Your task to perform on an android device: turn on priority inbox in the gmail app Image 0: 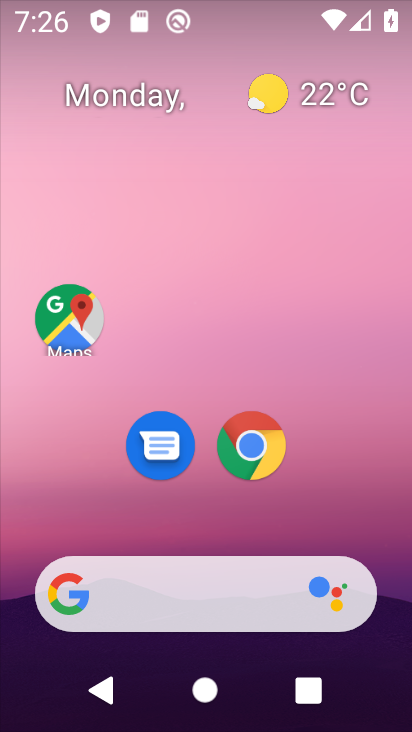
Step 0: click (194, 723)
Your task to perform on an android device: turn on priority inbox in the gmail app Image 1: 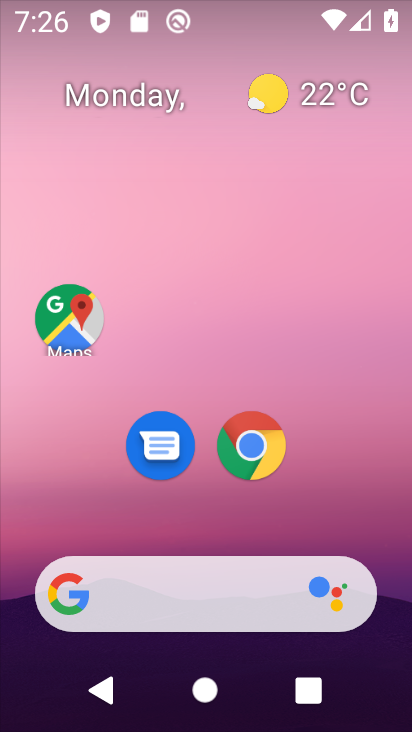
Step 1: press home button
Your task to perform on an android device: turn on priority inbox in the gmail app Image 2: 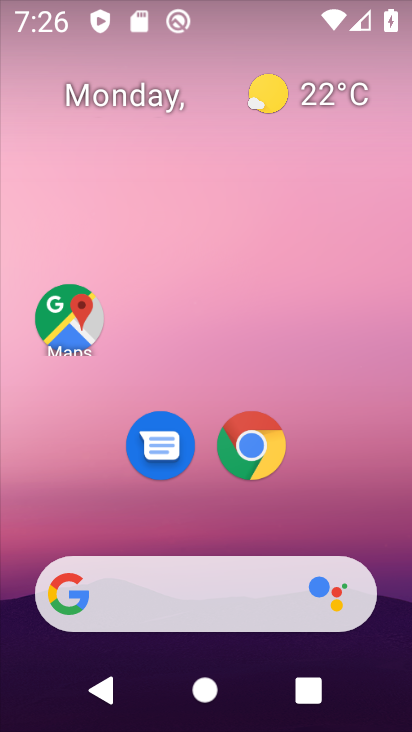
Step 2: drag from (344, 526) to (288, 78)
Your task to perform on an android device: turn on priority inbox in the gmail app Image 3: 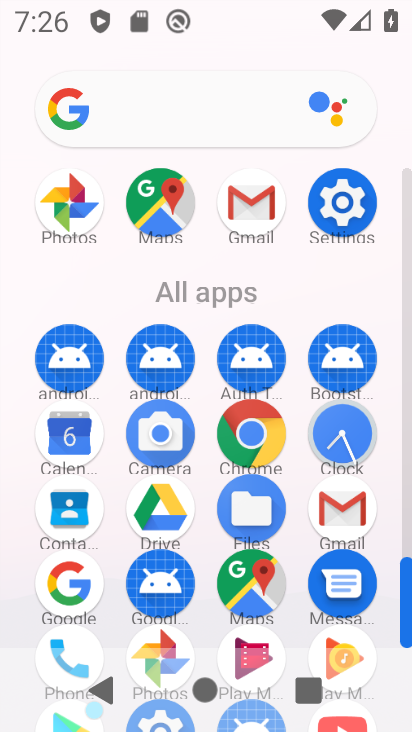
Step 3: click (239, 195)
Your task to perform on an android device: turn on priority inbox in the gmail app Image 4: 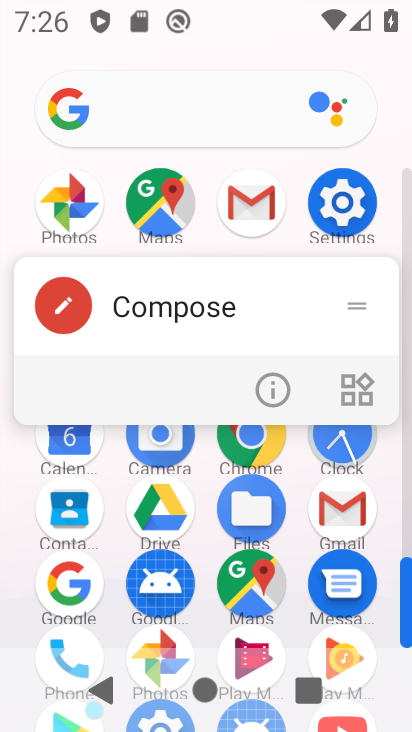
Step 4: click (236, 198)
Your task to perform on an android device: turn on priority inbox in the gmail app Image 5: 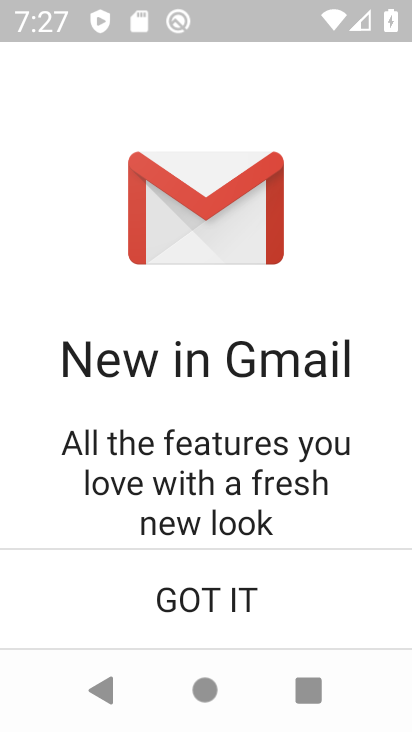
Step 5: click (216, 600)
Your task to perform on an android device: turn on priority inbox in the gmail app Image 6: 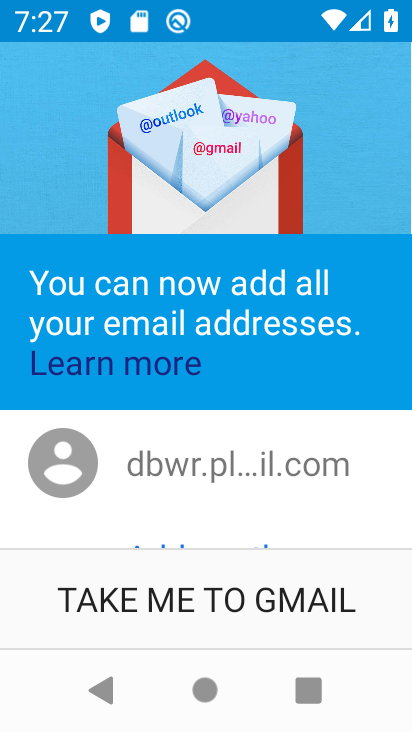
Step 6: click (216, 600)
Your task to perform on an android device: turn on priority inbox in the gmail app Image 7: 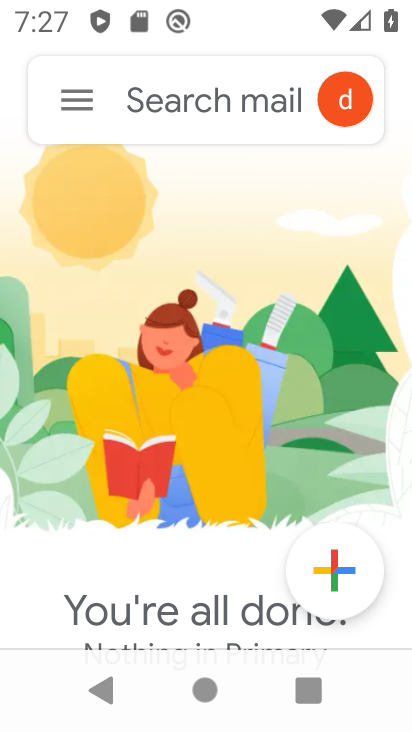
Step 7: click (73, 101)
Your task to perform on an android device: turn on priority inbox in the gmail app Image 8: 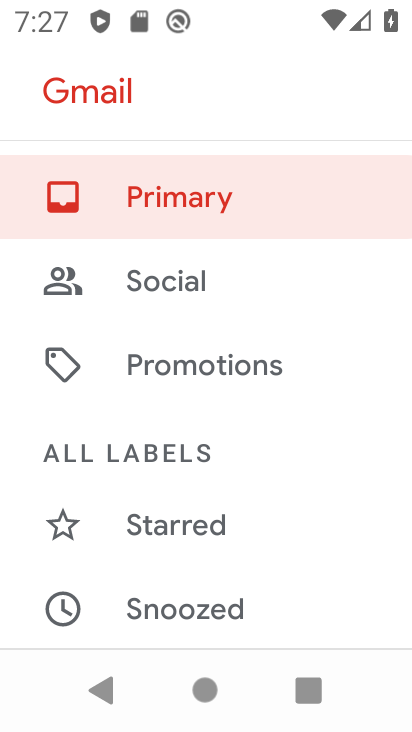
Step 8: drag from (32, 603) to (83, 27)
Your task to perform on an android device: turn on priority inbox in the gmail app Image 9: 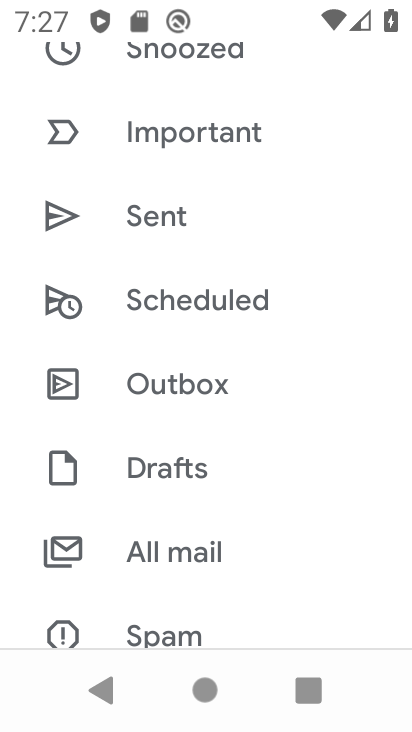
Step 9: drag from (36, 622) to (32, 235)
Your task to perform on an android device: turn on priority inbox in the gmail app Image 10: 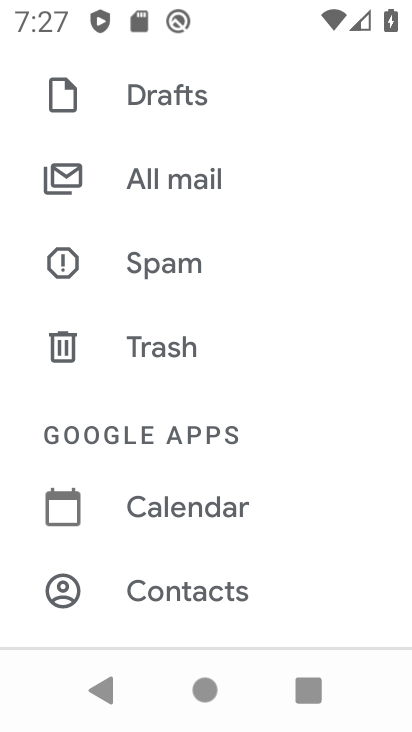
Step 10: drag from (39, 624) to (75, 296)
Your task to perform on an android device: turn on priority inbox in the gmail app Image 11: 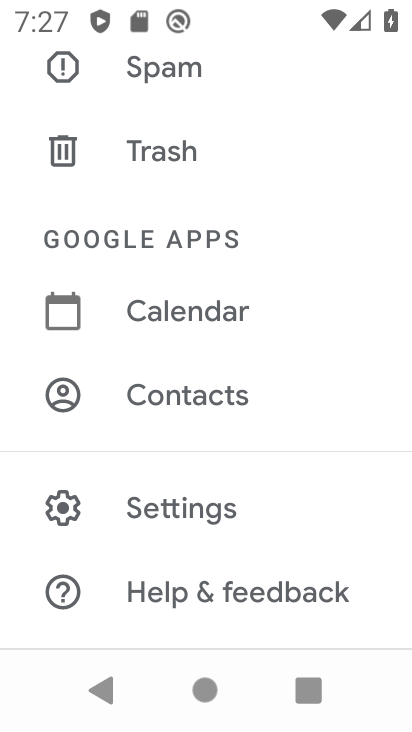
Step 11: click (134, 511)
Your task to perform on an android device: turn on priority inbox in the gmail app Image 12: 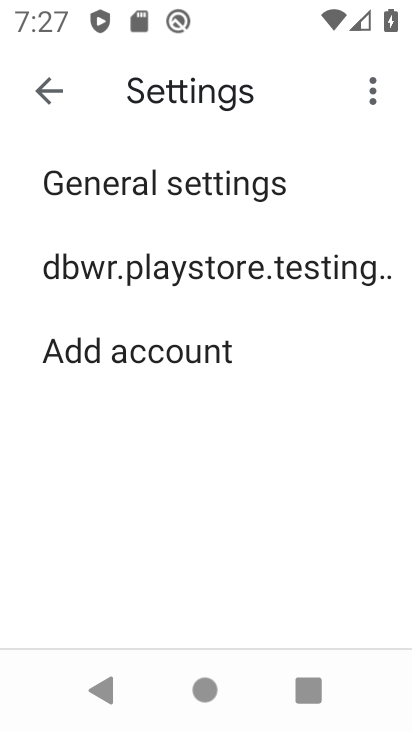
Step 12: click (134, 279)
Your task to perform on an android device: turn on priority inbox in the gmail app Image 13: 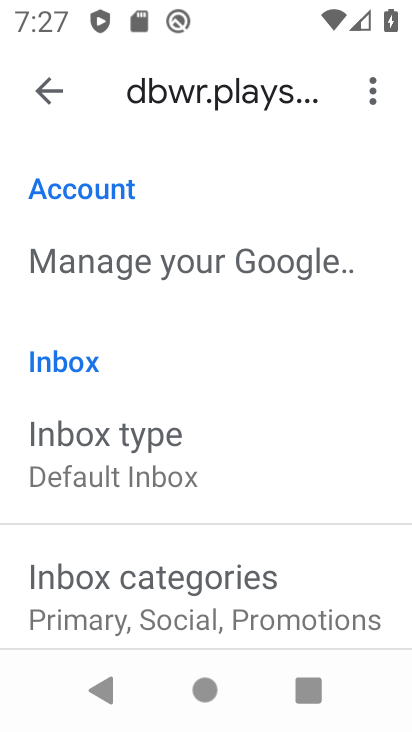
Step 13: click (140, 457)
Your task to perform on an android device: turn on priority inbox in the gmail app Image 14: 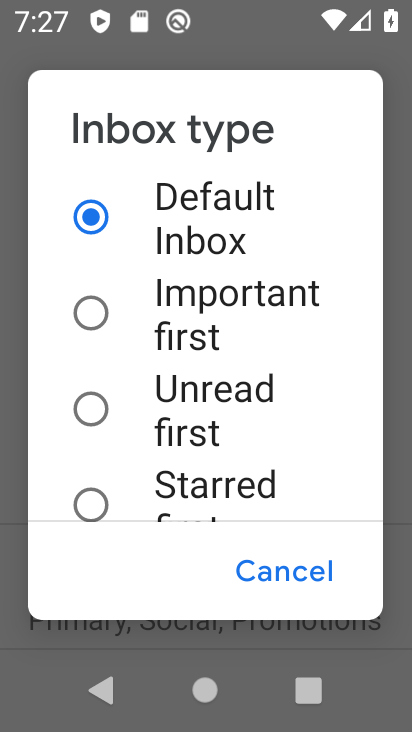
Step 14: drag from (67, 477) to (87, 281)
Your task to perform on an android device: turn on priority inbox in the gmail app Image 15: 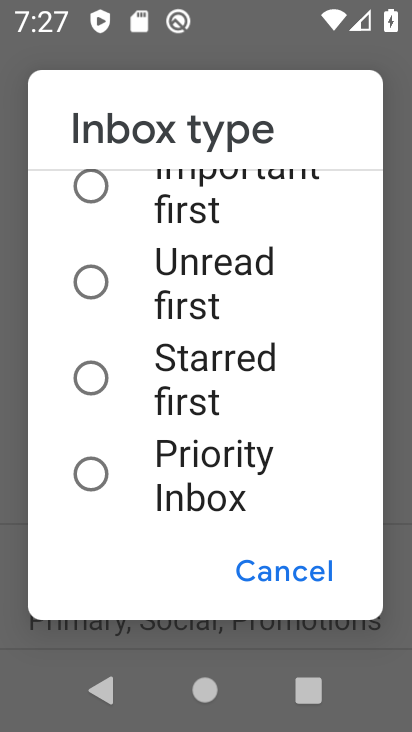
Step 15: click (101, 474)
Your task to perform on an android device: turn on priority inbox in the gmail app Image 16: 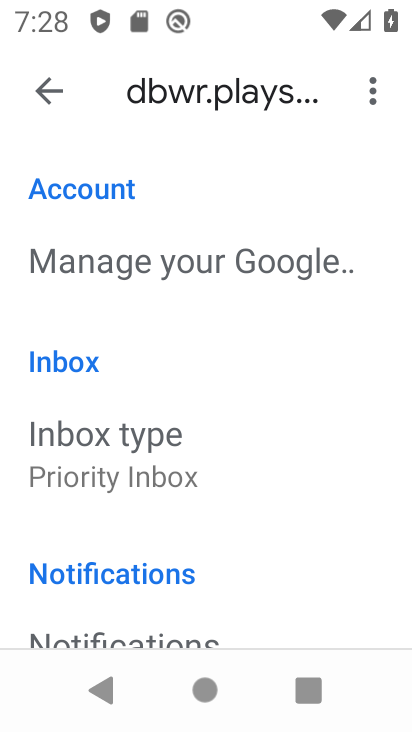
Step 16: task complete